Your task to perform on an android device: search for starred emails in the gmail app Image 0: 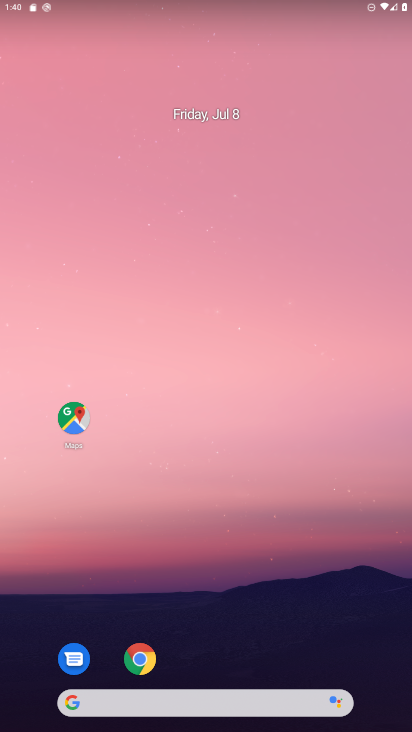
Step 0: drag from (217, 630) to (258, 45)
Your task to perform on an android device: search for starred emails in the gmail app Image 1: 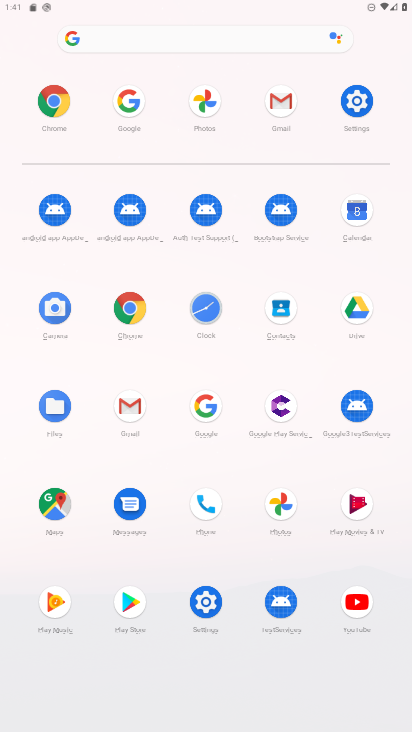
Step 1: click (281, 100)
Your task to perform on an android device: search for starred emails in the gmail app Image 2: 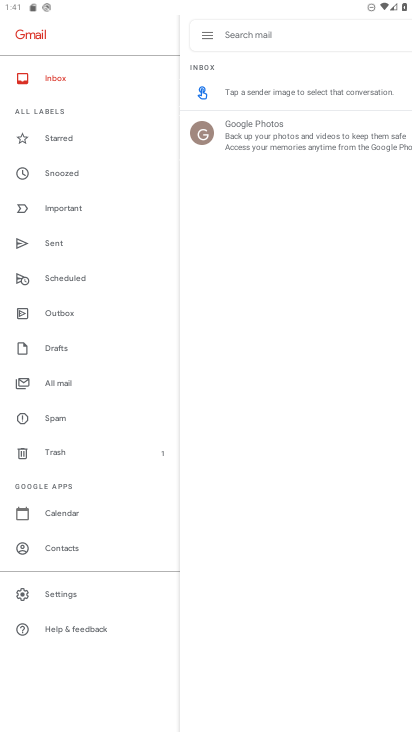
Step 2: click (54, 143)
Your task to perform on an android device: search for starred emails in the gmail app Image 3: 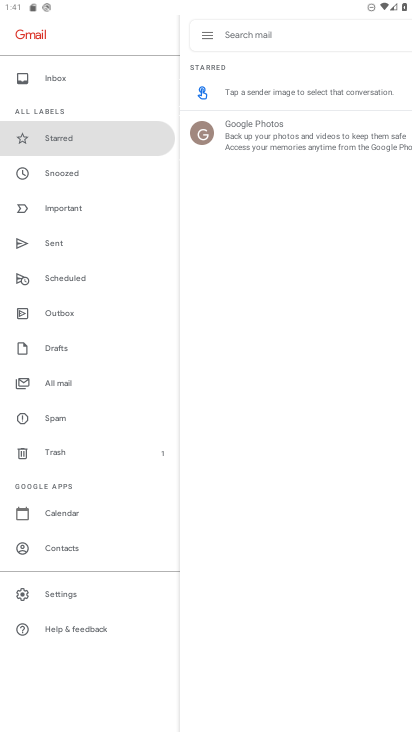
Step 3: click (264, 135)
Your task to perform on an android device: search for starred emails in the gmail app Image 4: 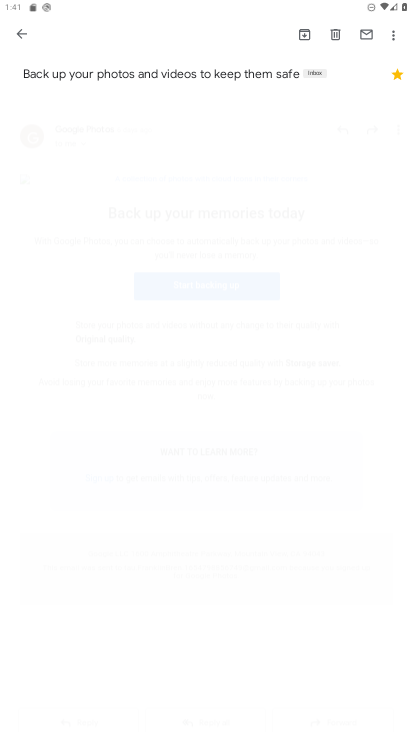
Step 4: task complete